Your task to perform on an android device: open a bookmark in the chrome app Image 0: 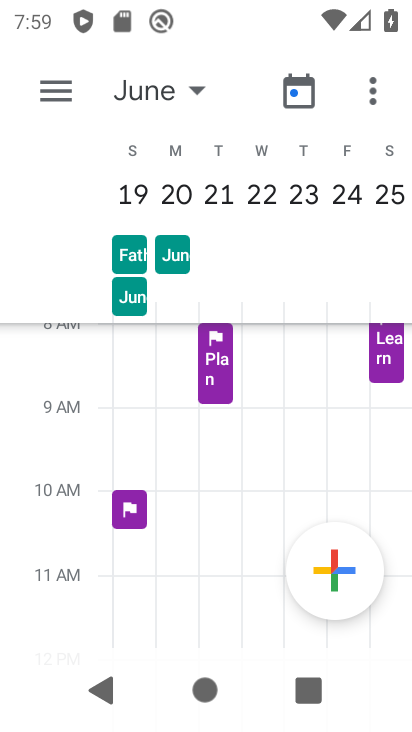
Step 0: press home button
Your task to perform on an android device: open a bookmark in the chrome app Image 1: 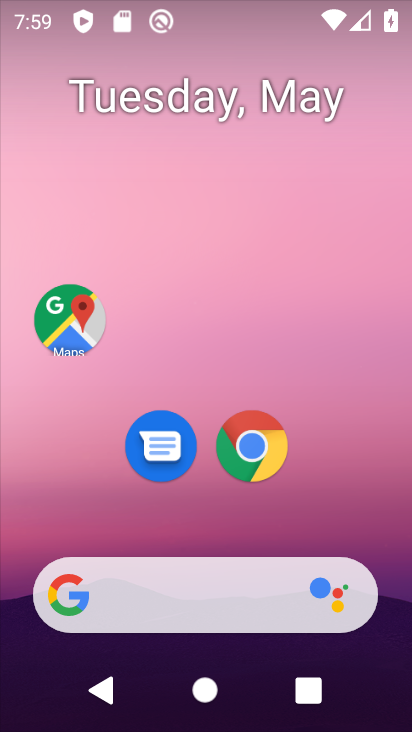
Step 1: click (254, 464)
Your task to perform on an android device: open a bookmark in the chrome app Image 2: 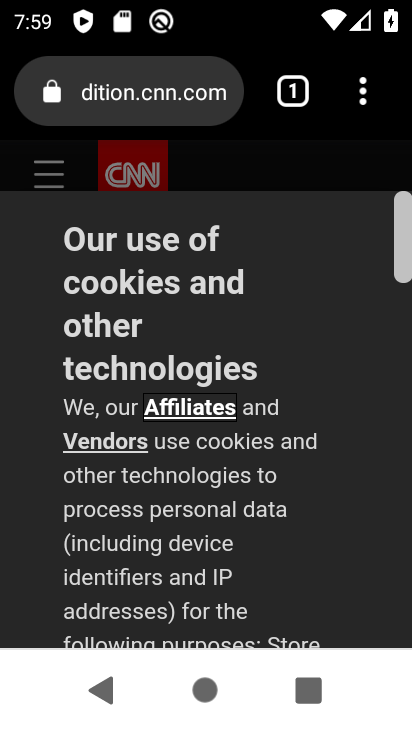
Step 2: click (364, 92)
Your task to perform on an android device: open a bookmark in the chrome app Image 3: 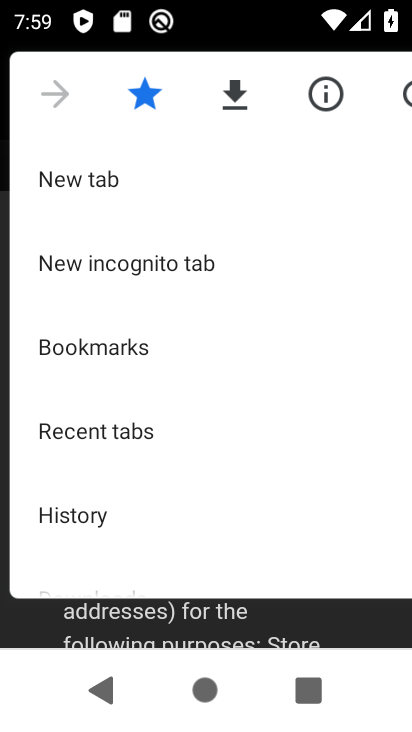
Step 3: click (118, 342)
Your task to perform on an android device: open a bookmark in the chrome app Image 4: 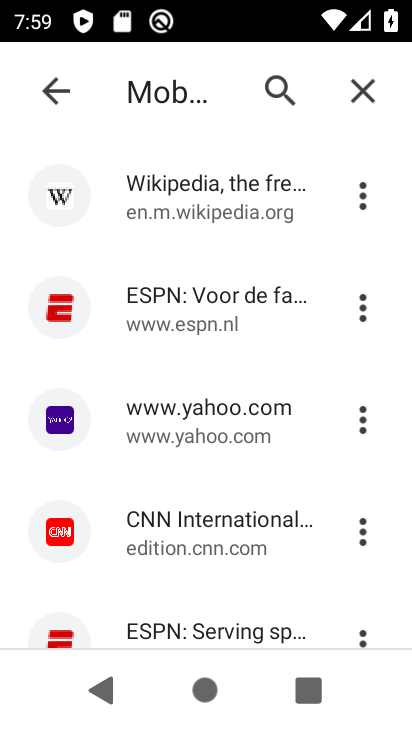
Step 4: drag from (156, 551) to (177, 309)
Your task to perform on an android device: open a bookmark in the chrome app Image 5: 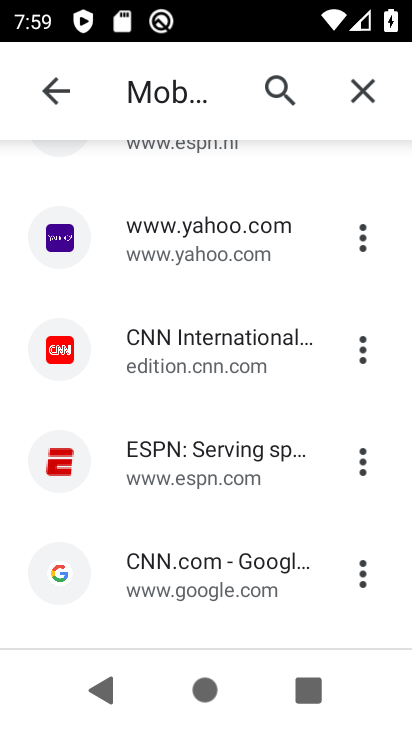
Step 5: click (180, 237)
Your task to perform on an android device: open a bookmark in the chrome app Image 6: 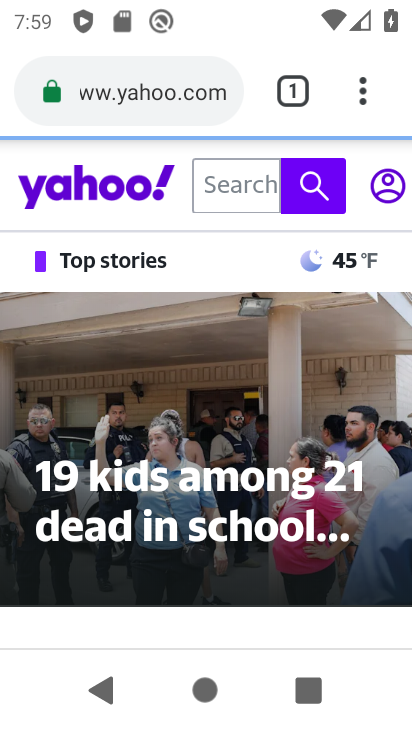
Step 6: task complete